Your task to perform on an android device: Open calendar and show me the second week of next month Image 0: 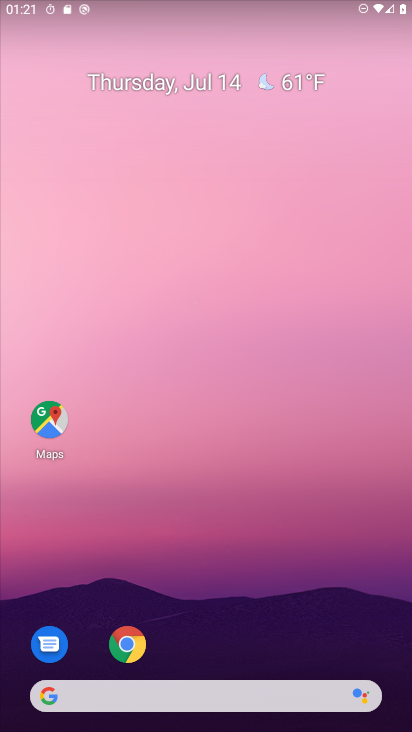
Step 0: drag from (353, 599) to (295, 108)
Your task to perform on an android device: Open calendar and show me the second week of next month Image 1: 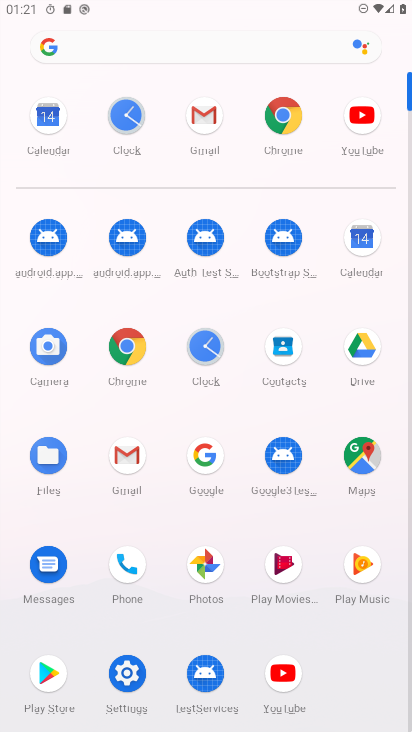
Step 1: click (364, 243)
Your task to perform on an android device: Open calendar and show me the second week of next month Image 2: 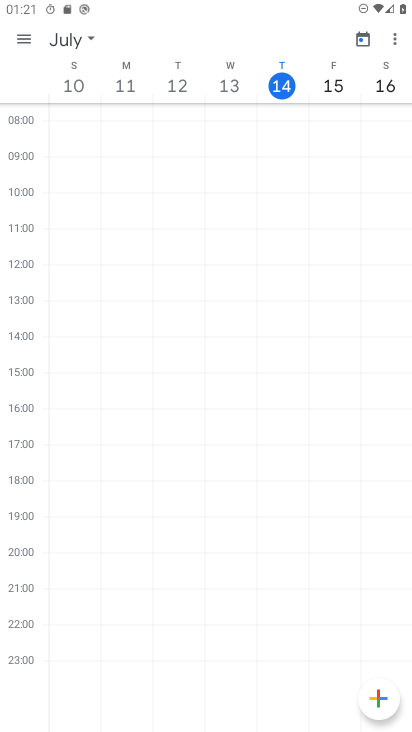
Step 2: click (80, 42)
Your task to perform on an android device: Open calendar and show me the second week of next month Image 3: 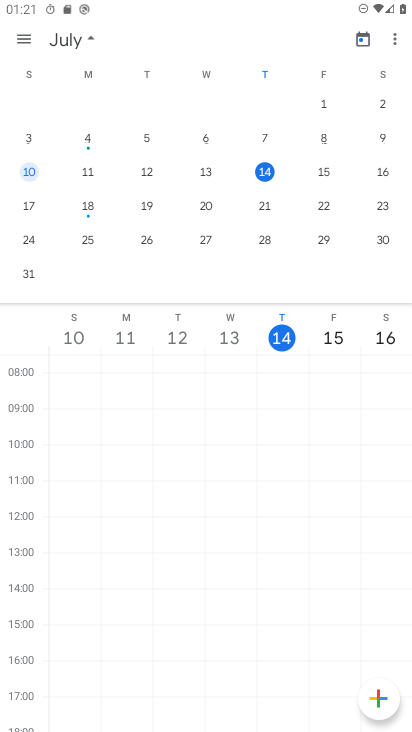
Step 3: drag from (384, 219) to (52, 186)
Your task to perform on an android device: Open calendar and show me the second week of next month Image 4: 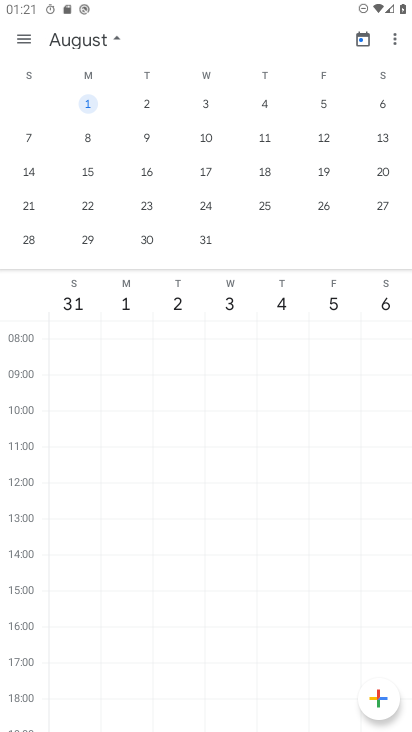
Step 4: click (145, 138)
Your task to perform on an android device: Open calendar and show me the second week of next month Image 5: 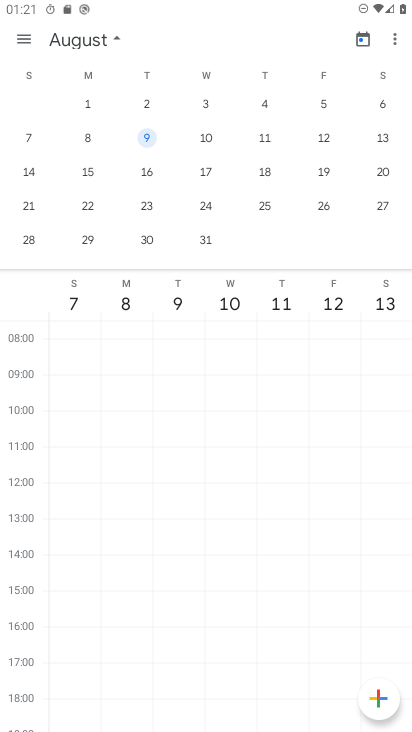
Step 5: task complete